Your task to perform on an android device: turn on airplane mode Image 0: 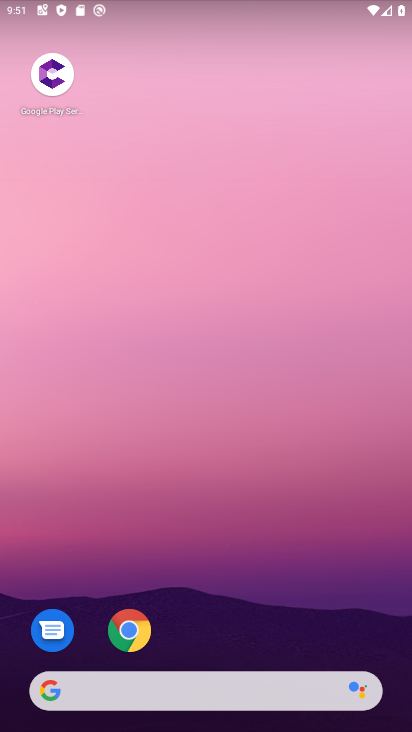
Step 0: drag from (173, 494) to (200, 76)
Your task to perform on an android device: turn on airplane mode Image 1: 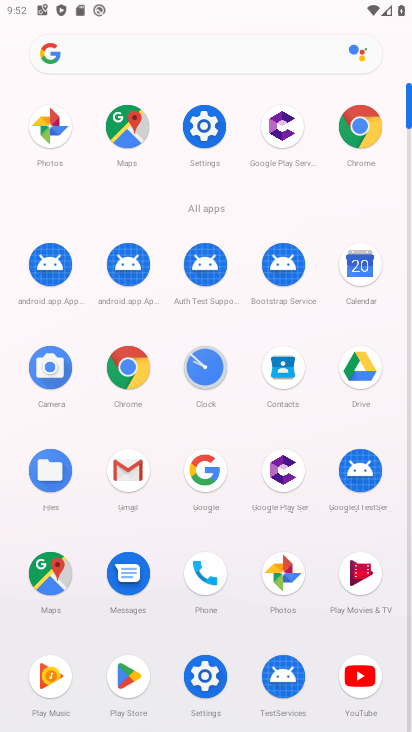
Step 1: click (214, 121)
Your task to perform on an android device: turn on airplane mode Image 2: 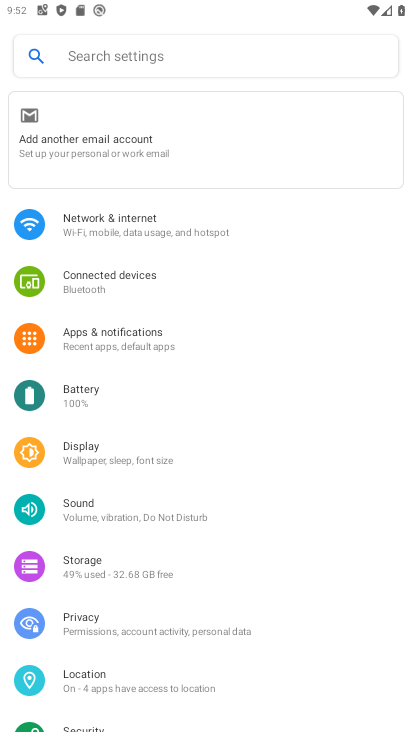
Step 2: click (109, 232)
Your task to perform on an android device: turn on airplane mode Image 3: 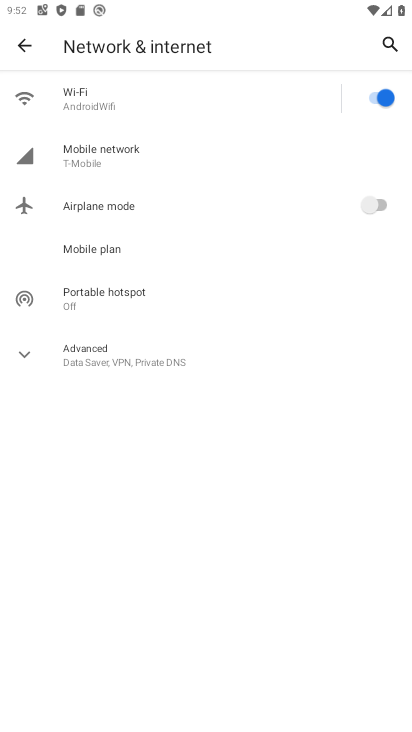
Step 3: click (375, 200)
Your task to perform on an android device: turn on airplane mode Image 4: 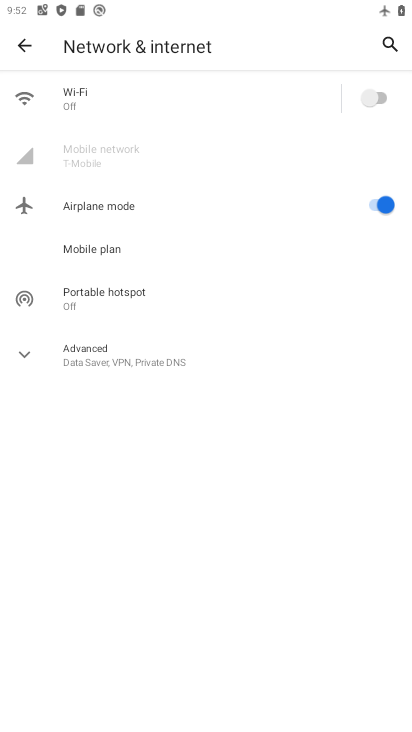
Step 4: task complete